Your task to perform on an android device: Go to sound settings Image 0: 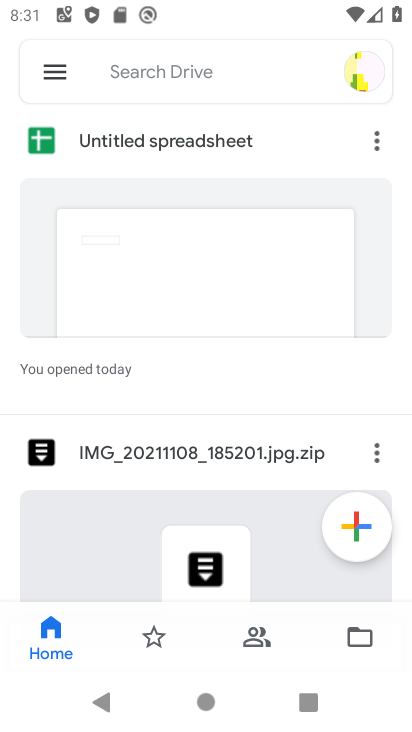
Step 0: click (365, 14)
Your task to perform on an android device: Go to sound settings Image 1: 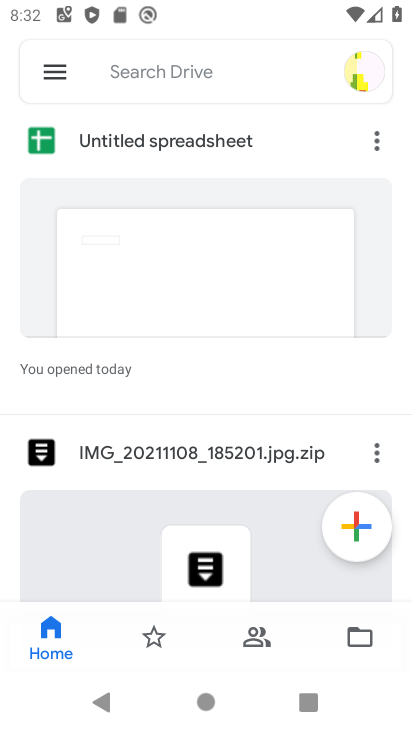
Step 1: press back button
Your task to perform on an android device: Go to sound settings Image 2: 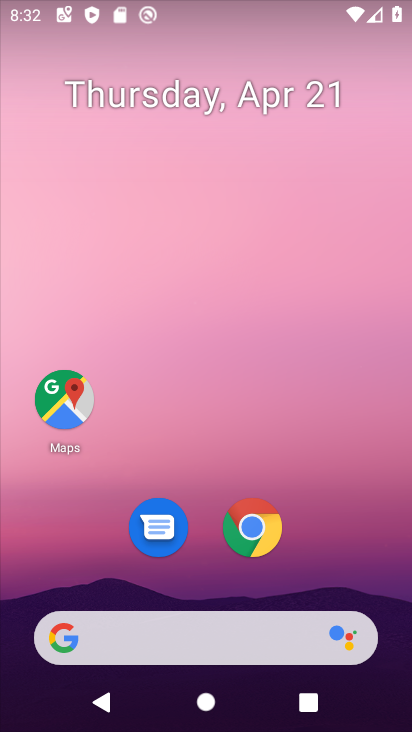
Step 2: drag from (195, 598) to (296, 109)
Your task to perform on an android device: Go to sound settings Image 3: 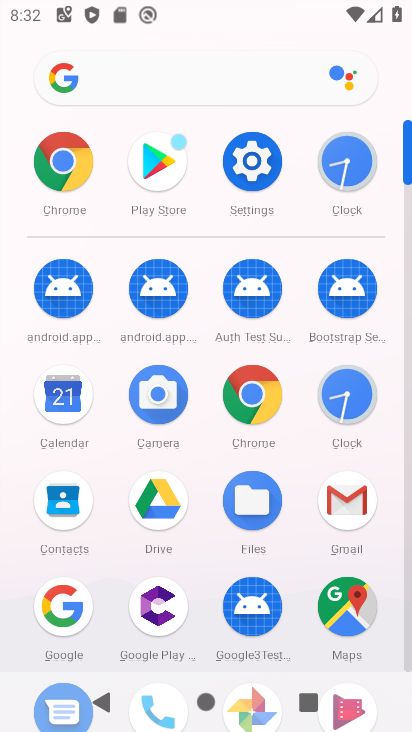
Step 3: click (234, 134)
Your task to perform on an android device: Go to sound settings Image 4: 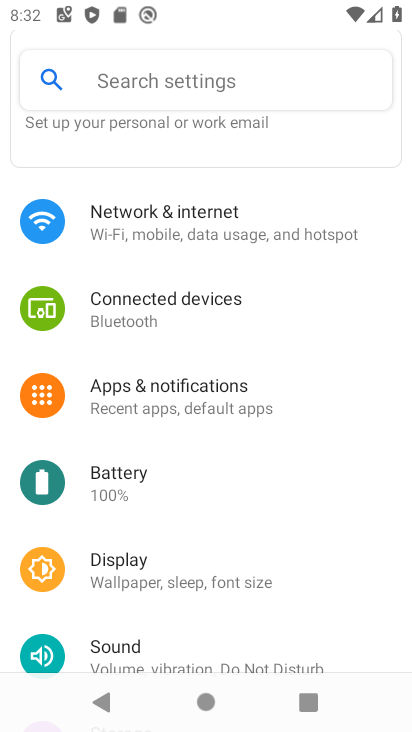
Step 4: drag from (202, 497) to (290, 212)
Your task to perform on an android device: Go to sound settings Image 5: 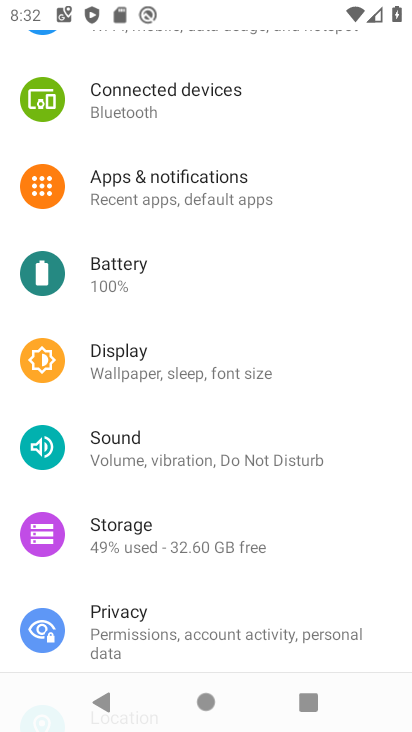
Step 5: click (268, 468)
Your task to perform on an android device: Go to sound settings Image 6: 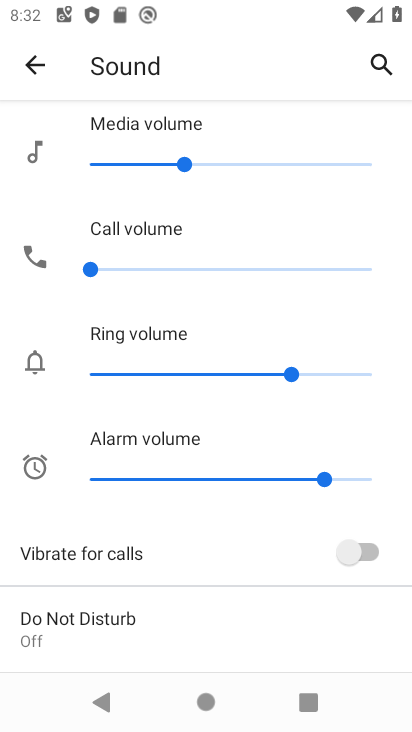
Step 6: task complete